Your task to perform on an android device: turn pop-ups on in chrome Image 0: 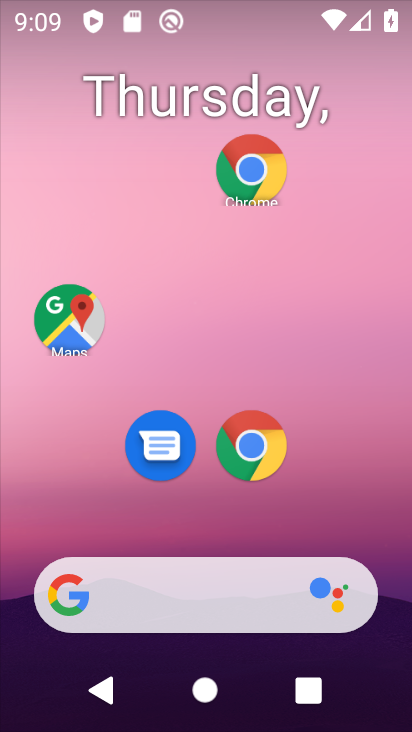
Step 0: click (257, 433)
Your task to perform on an android device: turn pop-ups on in chrome Image 1: 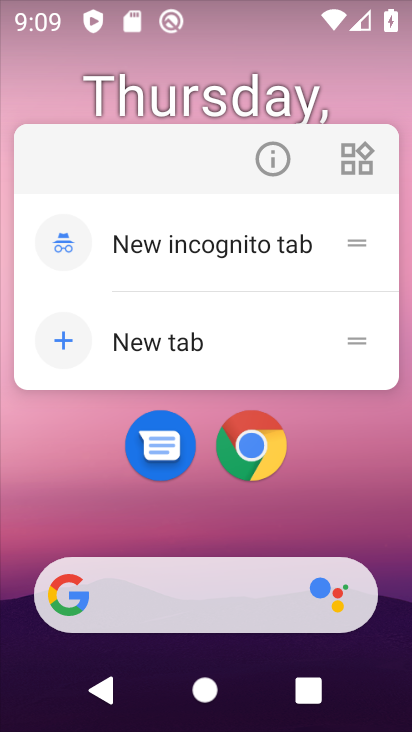
Step 1: click (237, 449)
Your task to perform on an android device: turn pop-ups on in chrome Image 2: 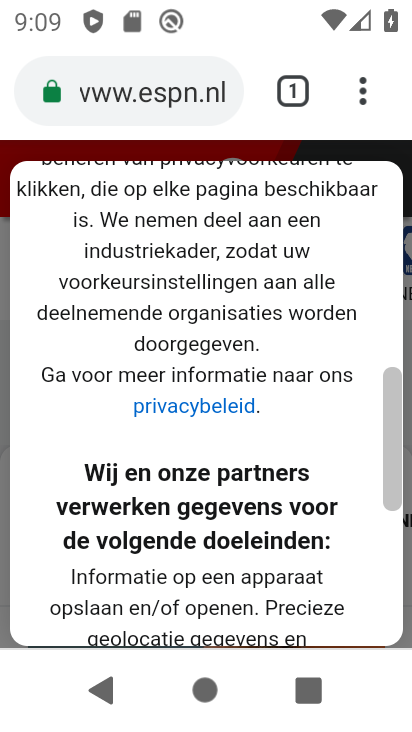
Step 2: click (362, 98)
Your task to perform on an android device: turn pop-ups on in chrome Image 3: 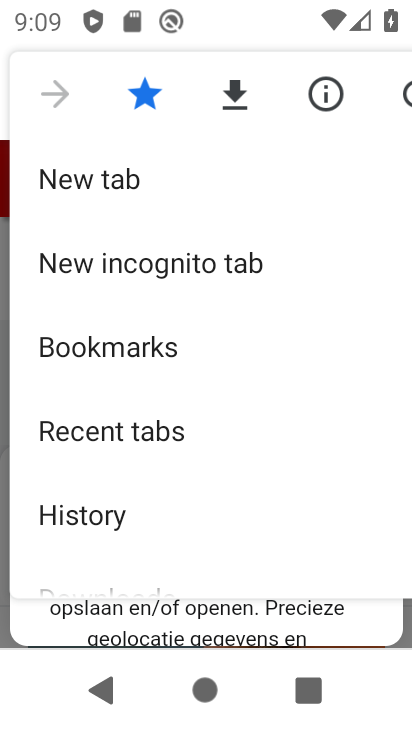
Step 3: drag from (144, 514) to (3, 44)
Your task to perform on an android device: turn pop-ups on in chrome Image 4: 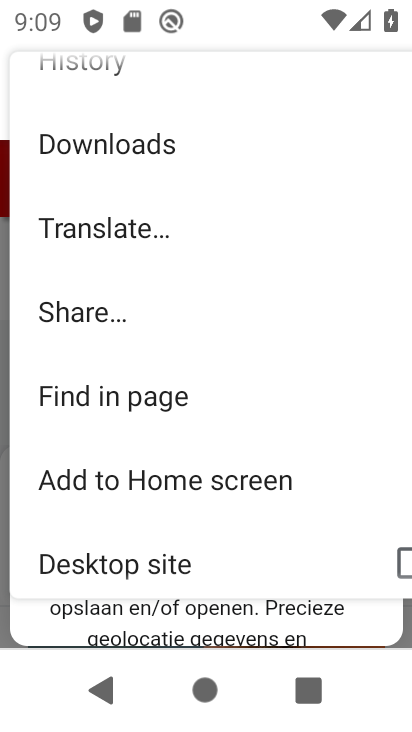
Step 4: drag from (184, 442) to (114, 78)
Your task to perform on an android device: turn pop-ups on in chrome Image 5: 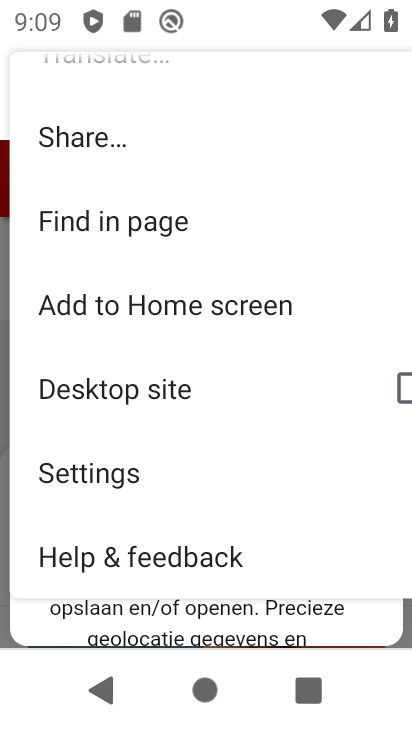
Step 5: click (104, 458)
Your task to perform on an android device: turn pop-ups on in chrome Image 6: 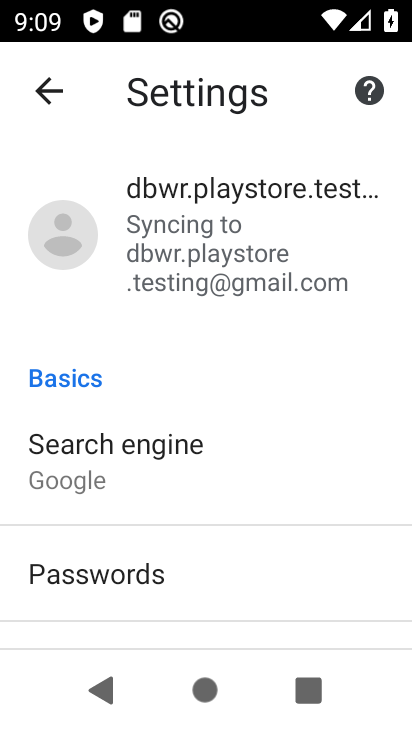
Step 6: click (104, 458)
Your task to perform on an android device: turn pop-ups on in chrome Image 7: 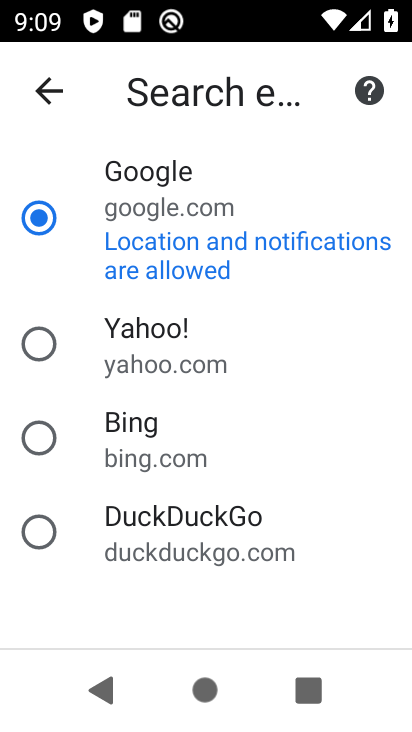
Step 7: drag from (153, 537) to (147, 396)
Your task to perform on an android device: turn pop-ups on in chrome Image 8: 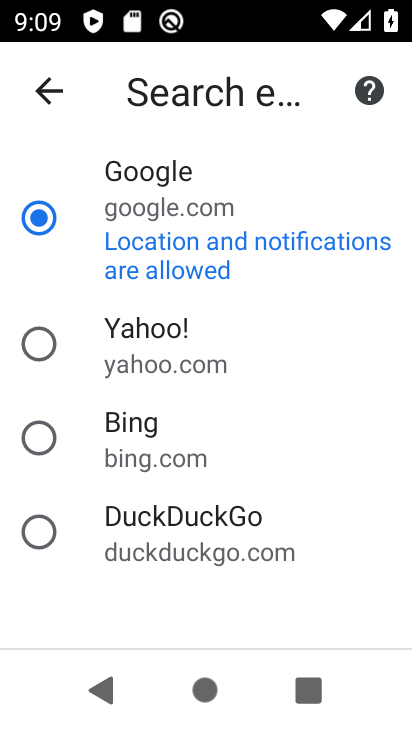
Step 8: click (54, 83)
Your task to perform on an android device: turn pop-ups on in chrome Image 9: 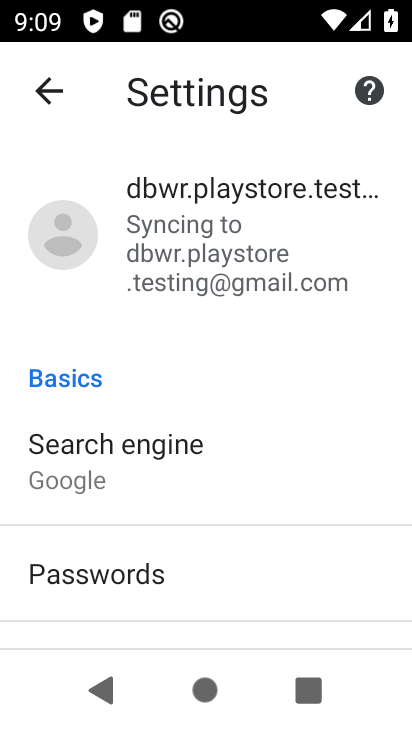
Step 9: drag from (206, 531) to (362, 87)
Your task to perform on an android device: turn pop-ups on in chrome Image 10: 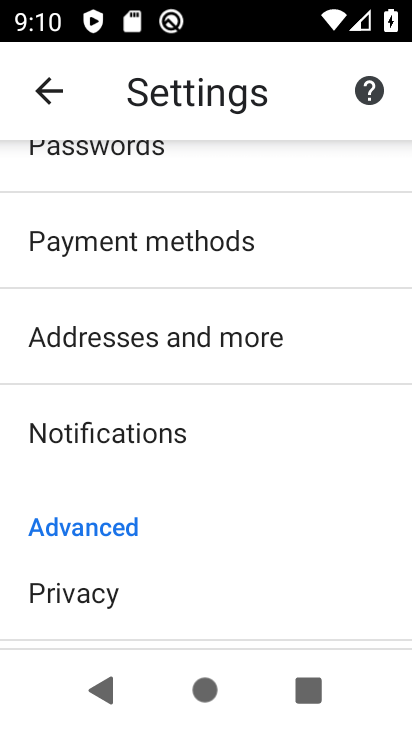
Step 10: drag from (228, 570) to (192, 293)
Your task to perform on an android device: turn pop-ups on in chrome Image 11: 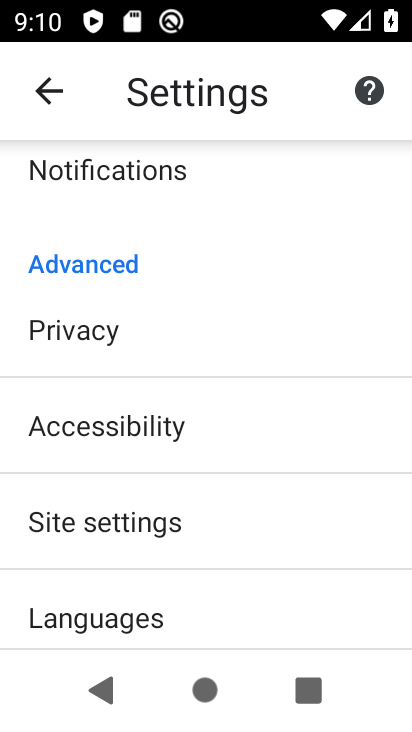
Step 11: click (180, 535)
Your task to perform on an android device: turn pop-ups on in chrome Image 12: 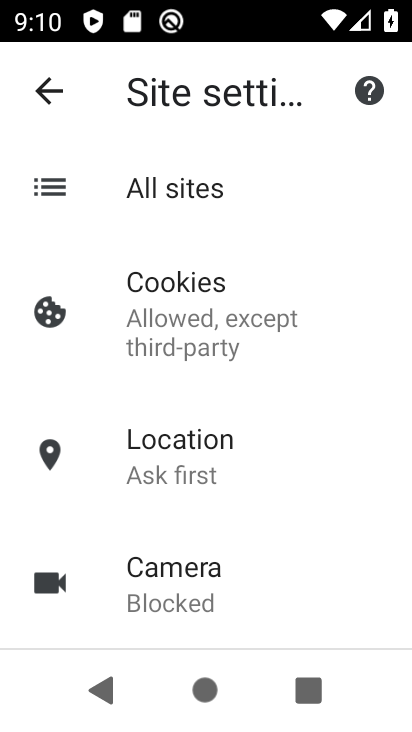
Step 12: drag from (180, 535) to (126, 218)
Your task to perform on an android device: turn pop-ups on in chrome Image 13: 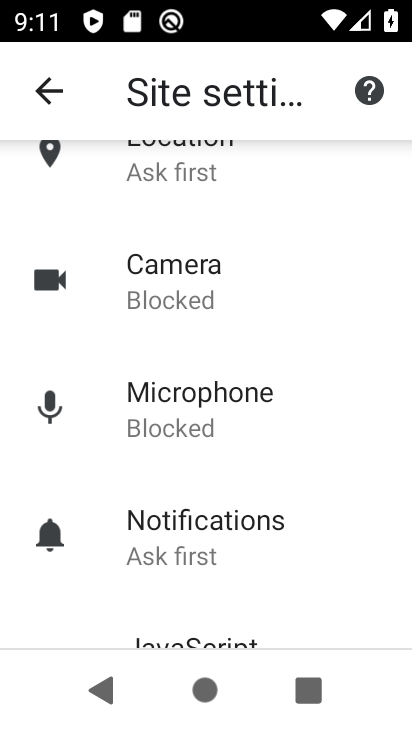
Step 13: drag from (208, 517) to (198, 237)
Your task to perform on an android device: turn pop-ups on in chrome Image 14: 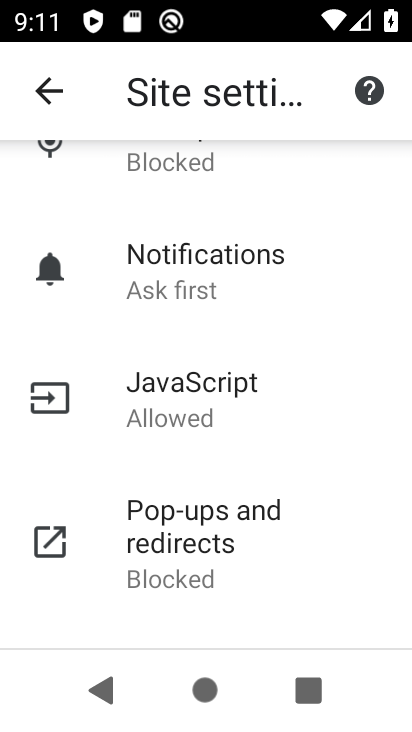
Step 14: click (145, 572)
Your task to perform on an android device: turn pop-ups on in chrome Image 15: 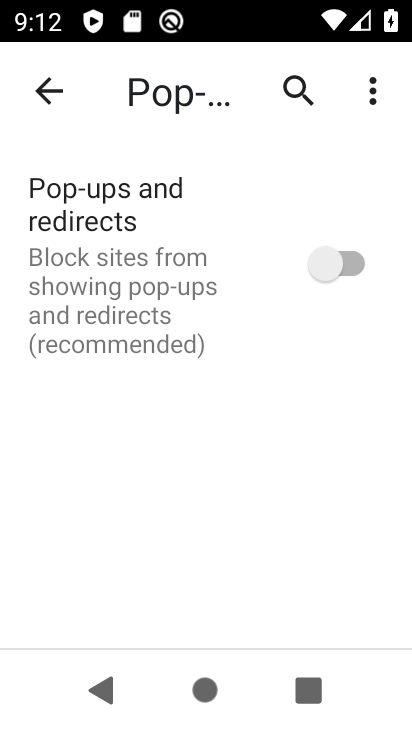
Step 15: task complete